Your task to perform on an android device: Add macbook pro 15 inch to the cart on bestbuy.com Image 0: 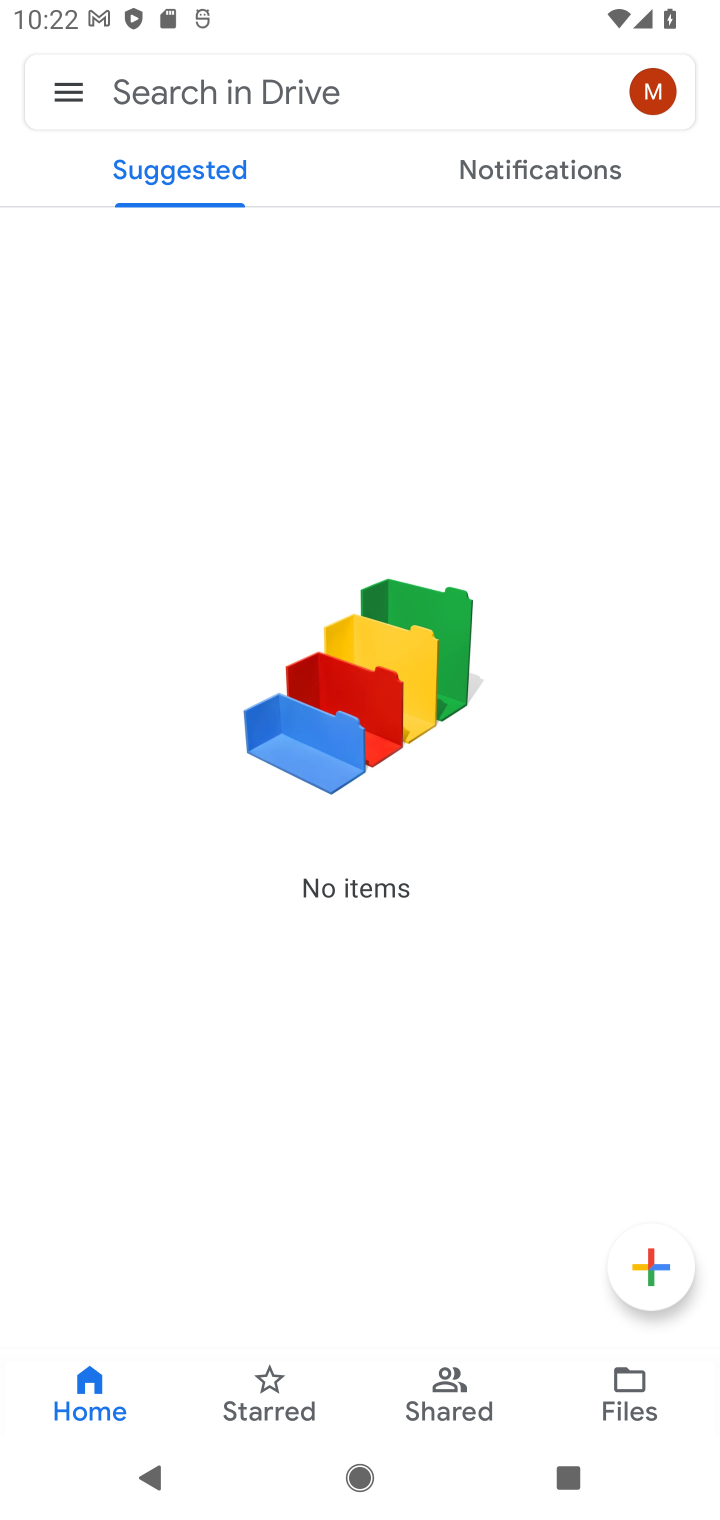
Step 0: press home button
Your task to perform on an android device: Add macbook pro 15 inch to the cart on bestbuy.com Image 1: 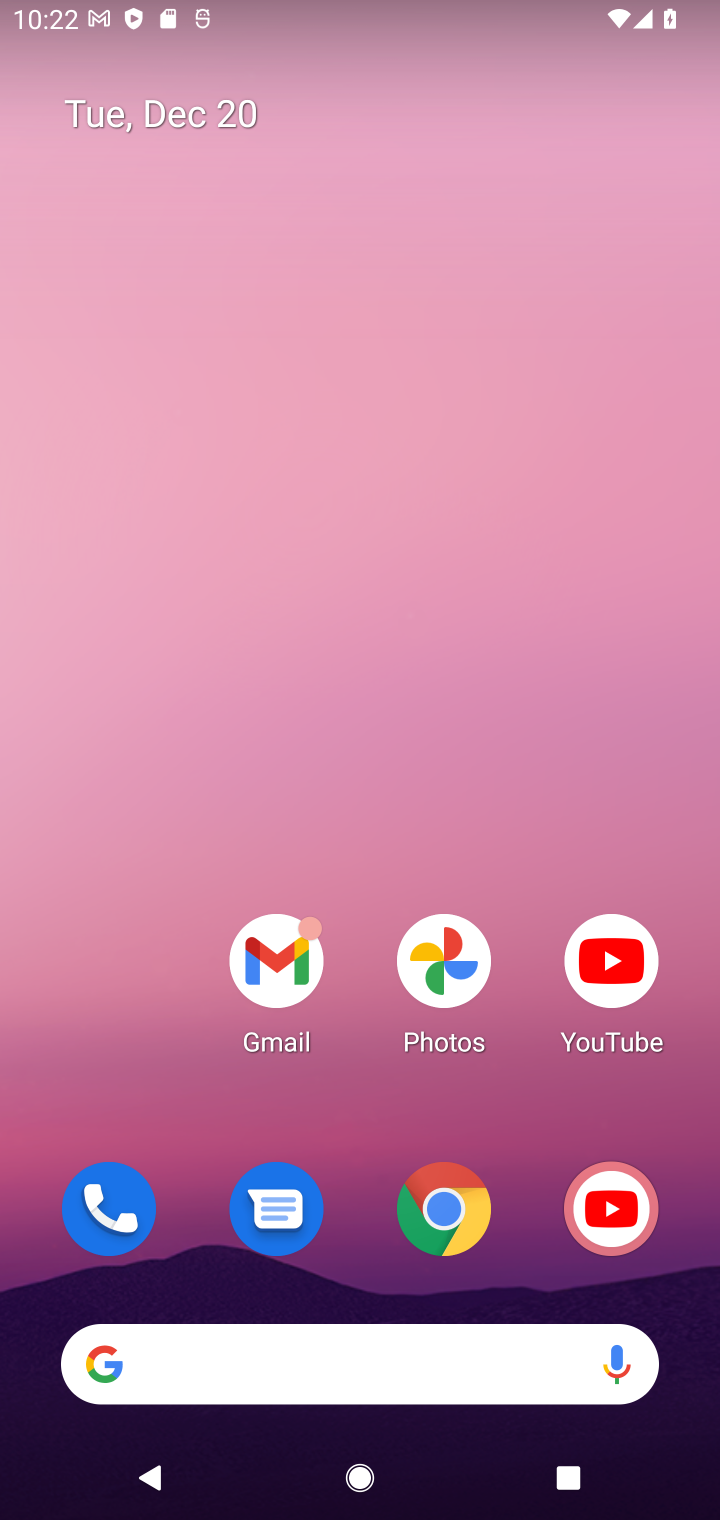
Step 1: click (448, 1219)
Your task to perform on an android device: Add macbook pro 15 inch to the cart on bestbuy.com Image 2: 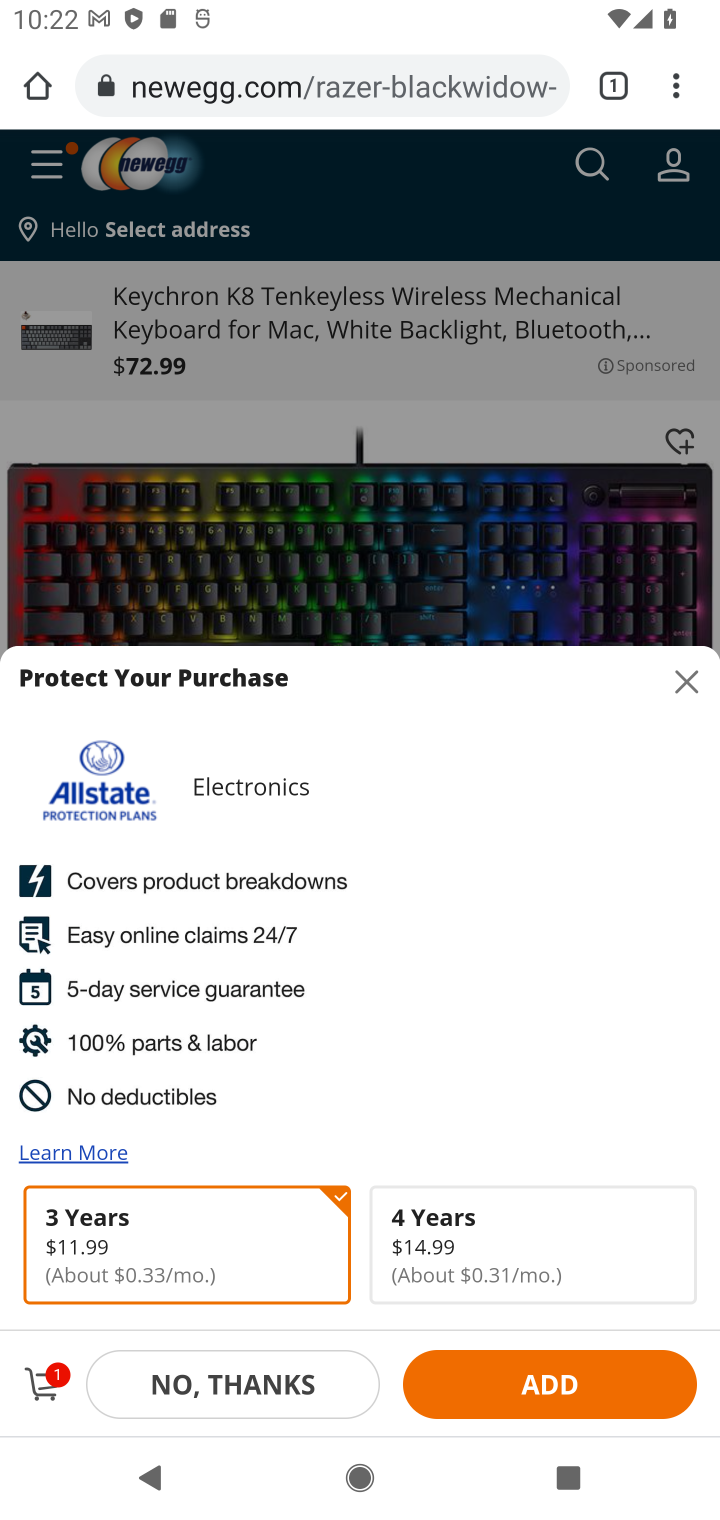
Step 2: click (241, 85)
Your task to perform on an android device: Add macbook pro 15 inch to the cart on bestbuy.com Image 3: 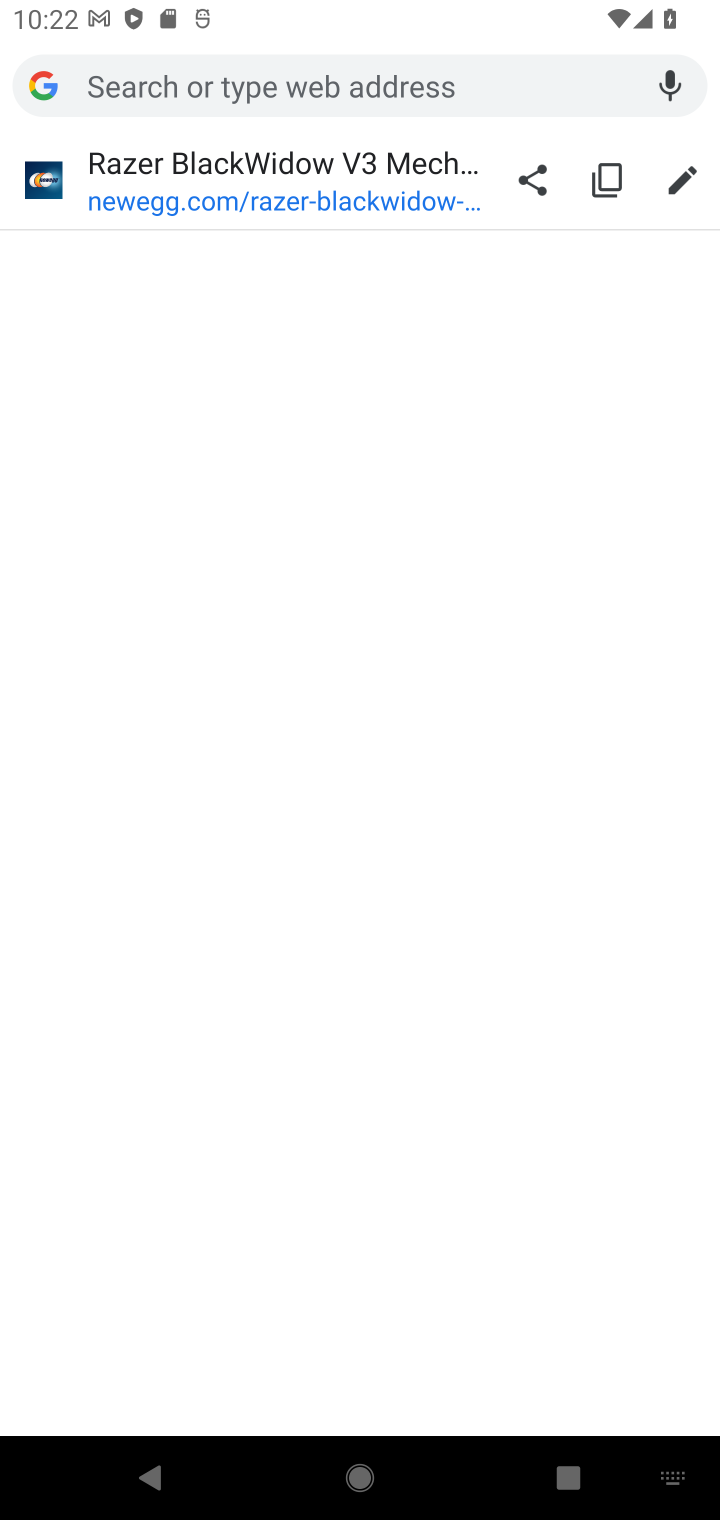
Step 3: type "bestbuy.com"
Your task to perform on an android device: Add macbook pro 15 inch to the cart on bestbuy.com Image 4: 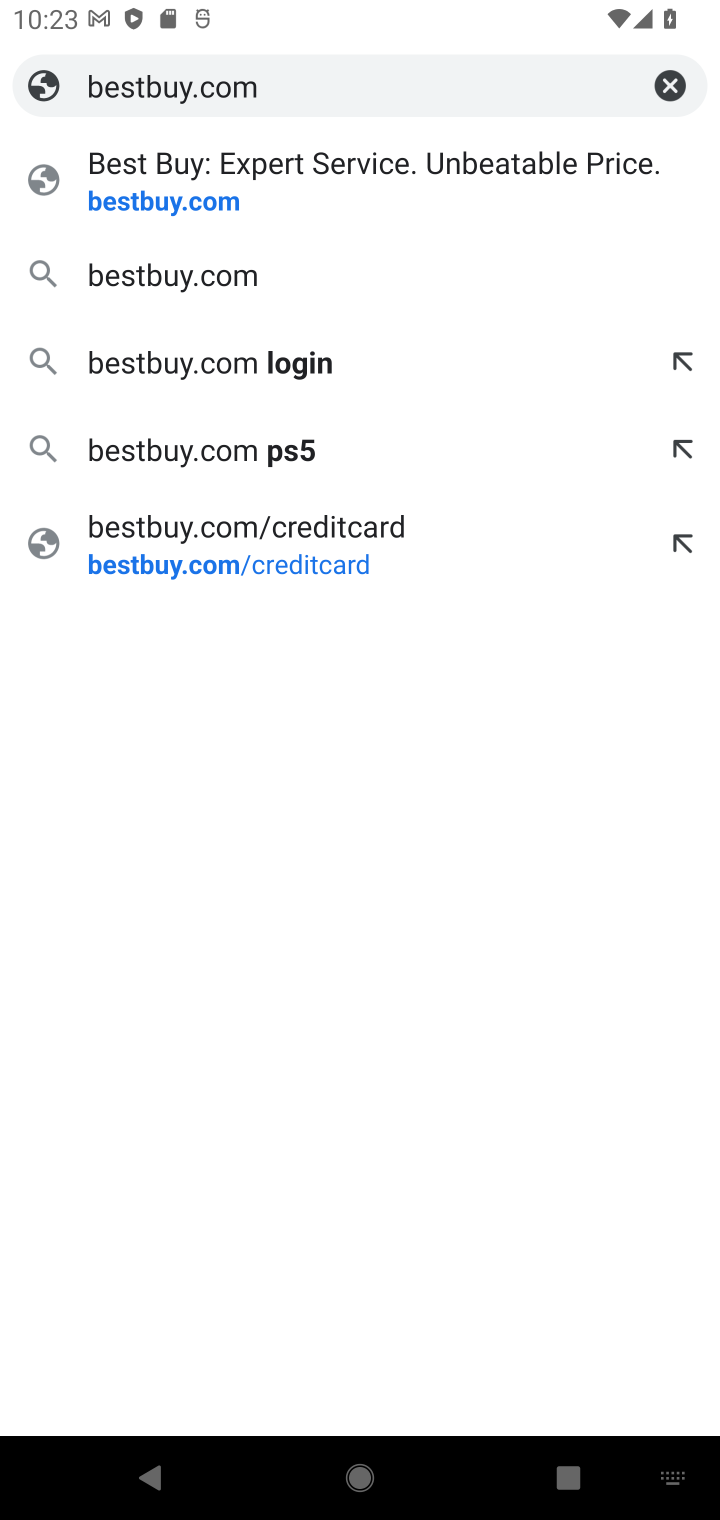
Step 4: click (137, 191)
Your task to perform on an android device: Add macbook pro 15 inch to the cart on bestbuy.com Image 5: 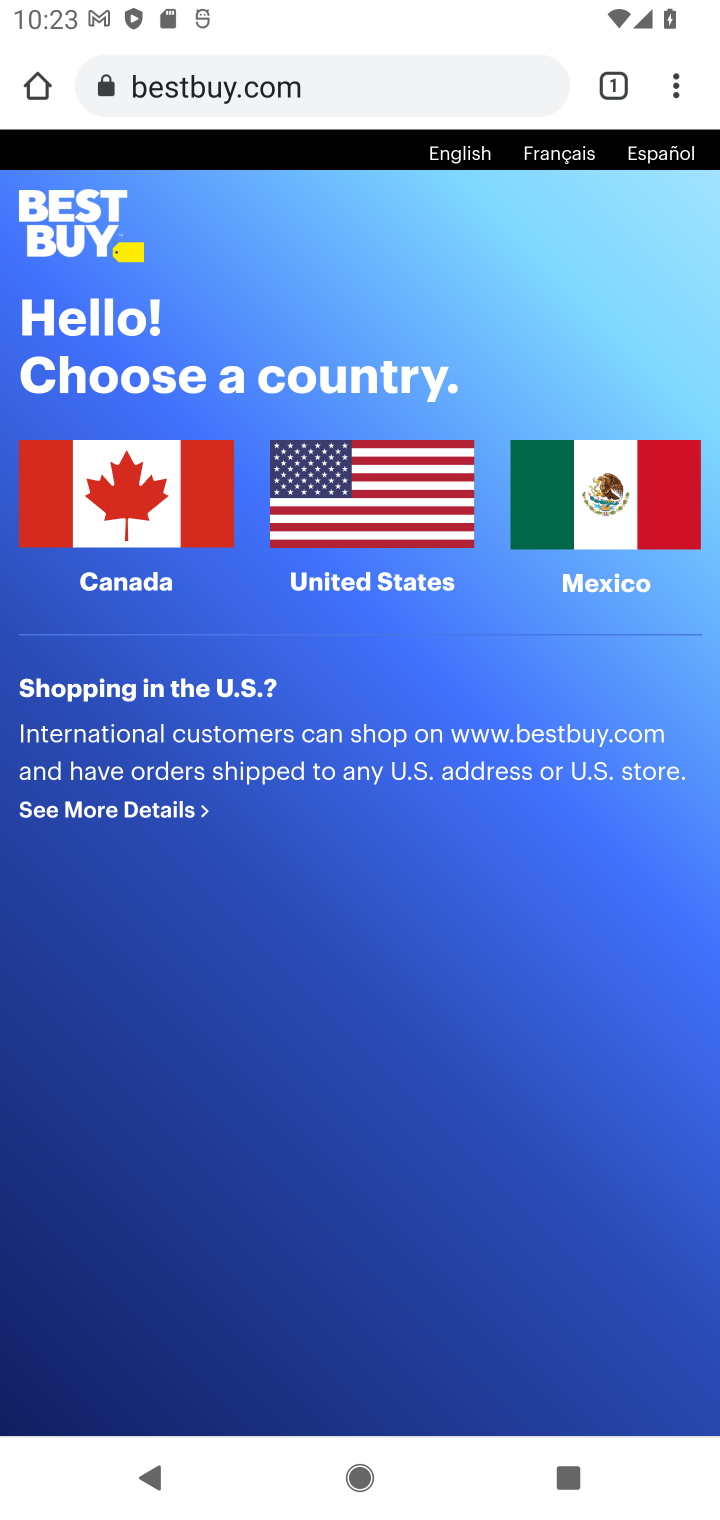
Step 5: click (377, 499)
Your task to perform on an android device: Add macbook pro 15 inch to the cart on bestbuy.com Image 6: 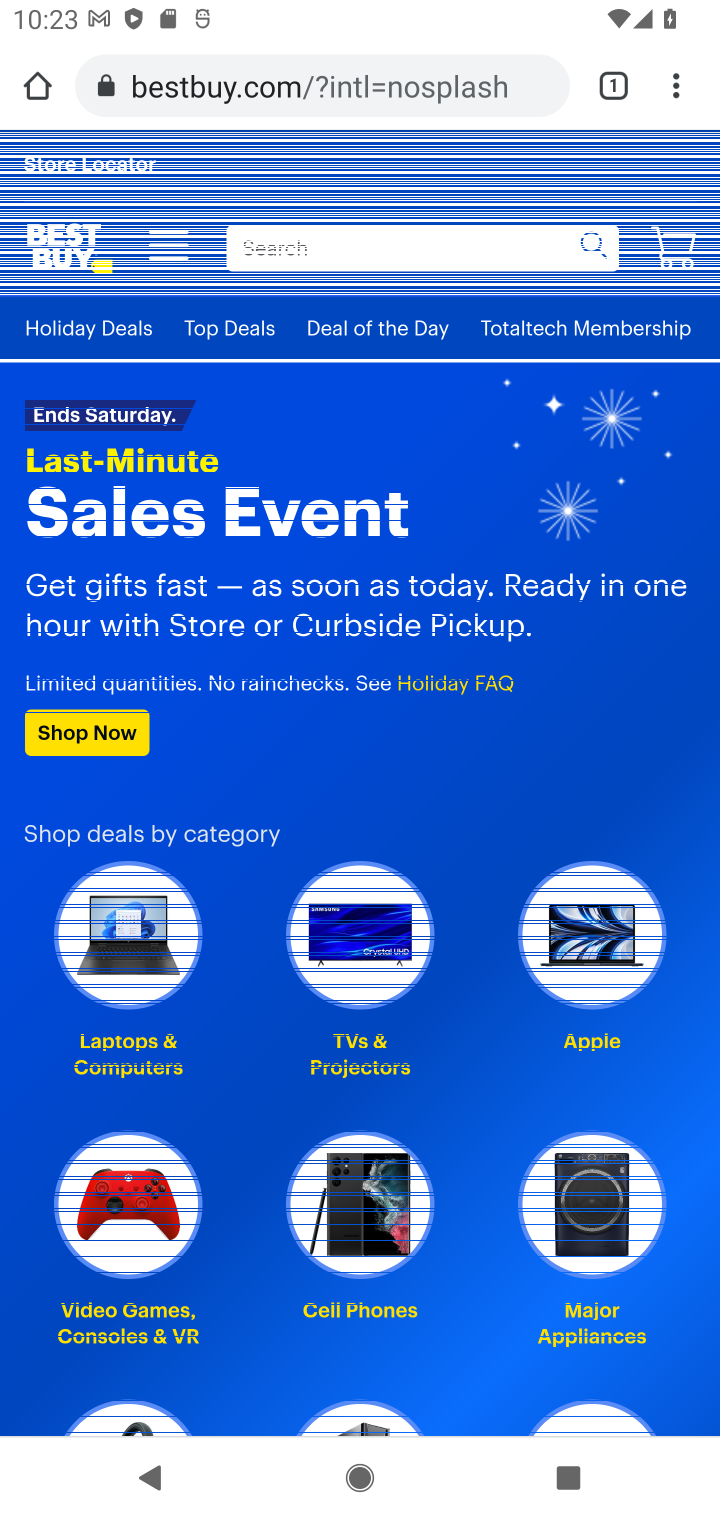
Step 6: click (268, 257)
Your task to perform on an android device: Add macbook pro 15 inch to the cart on bestbuy.com Image 7: 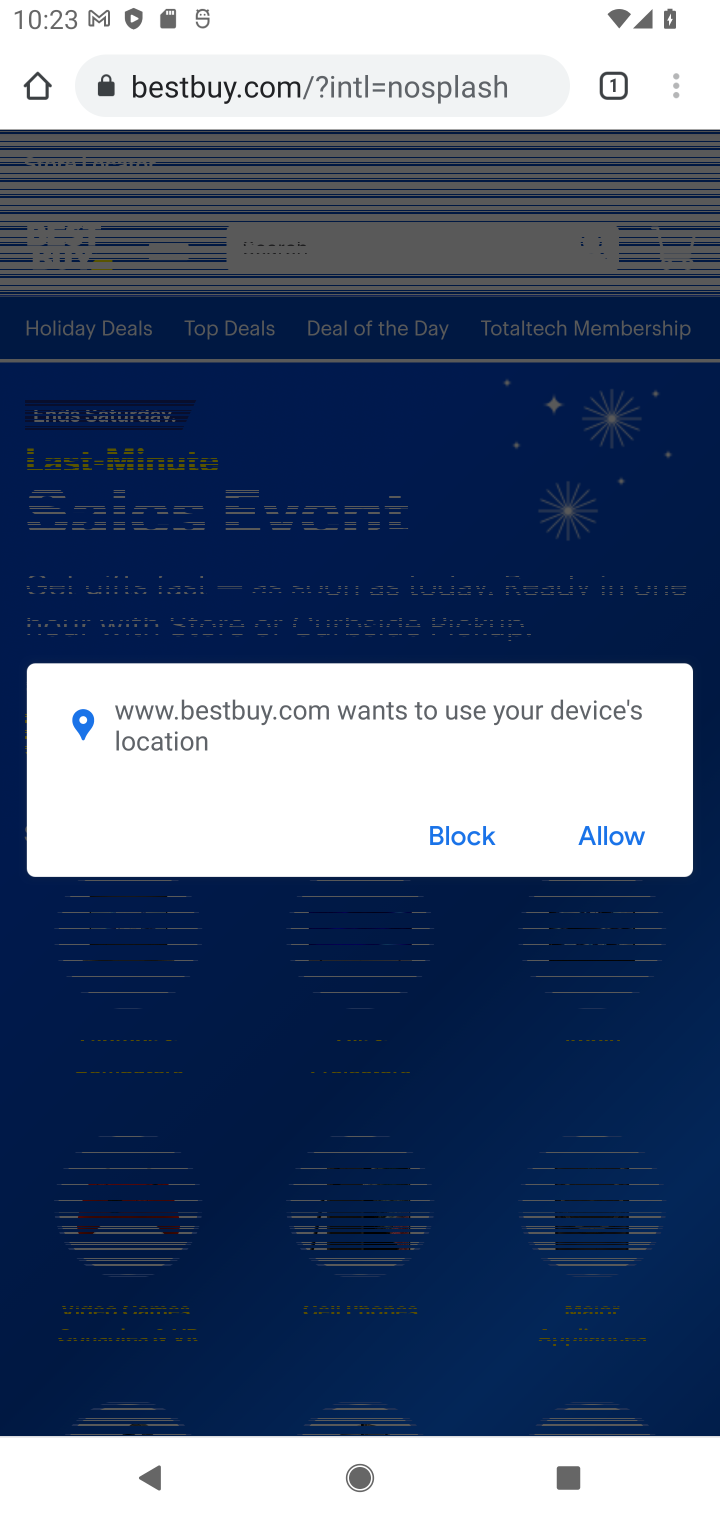
Step 7: click (463, 844)
Your task to perform on an android device: Add macbook pro 15 inch to the cart on bestbuy.com Image 8: 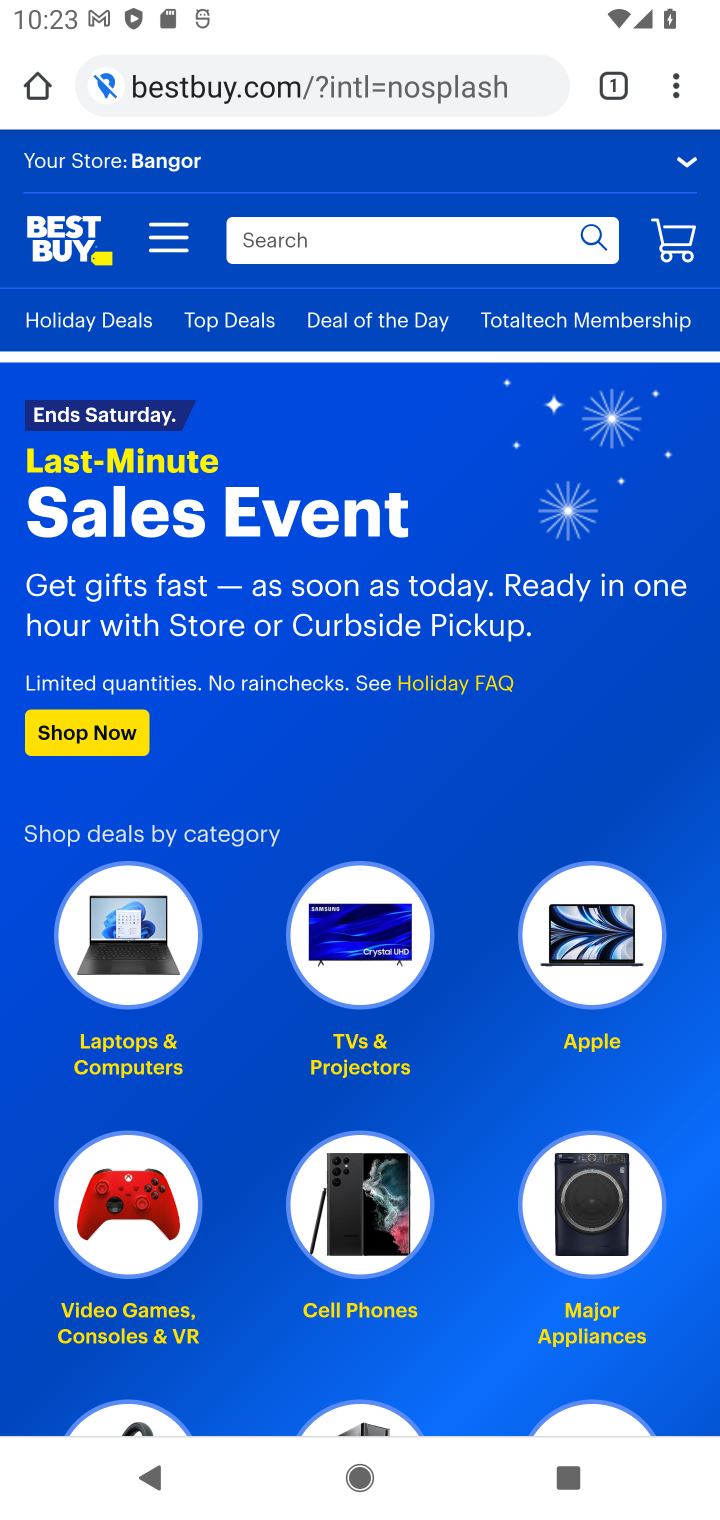
Step 8: click (289, 251)
Your task to perform on an android device: Add macbook pro 15 inch to the cart on bestbuy.com Image 9: 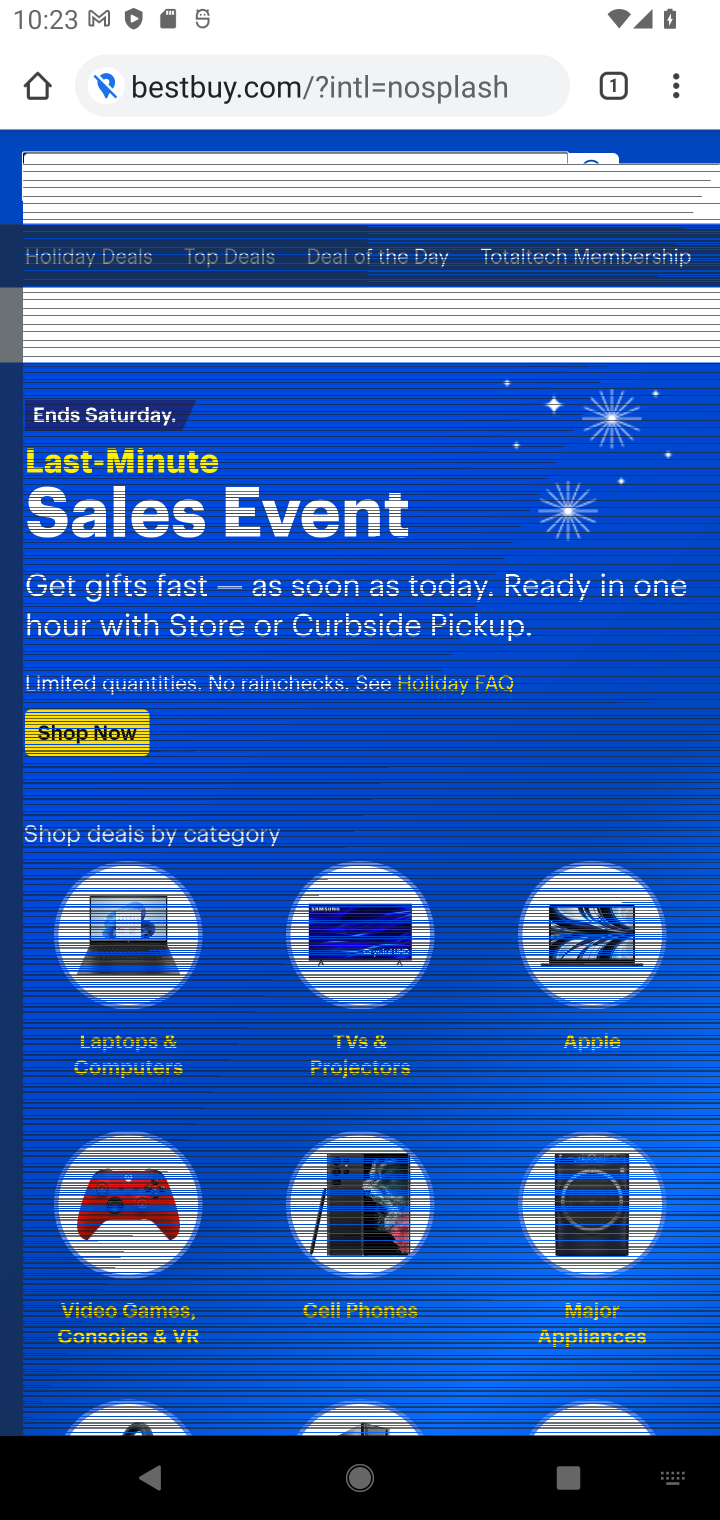
Step 9: type "macbook pro 15 inch"
Your task to perform on an android device: Add macbook pro 15 inch to the cart on bestbuy.com Image 10: 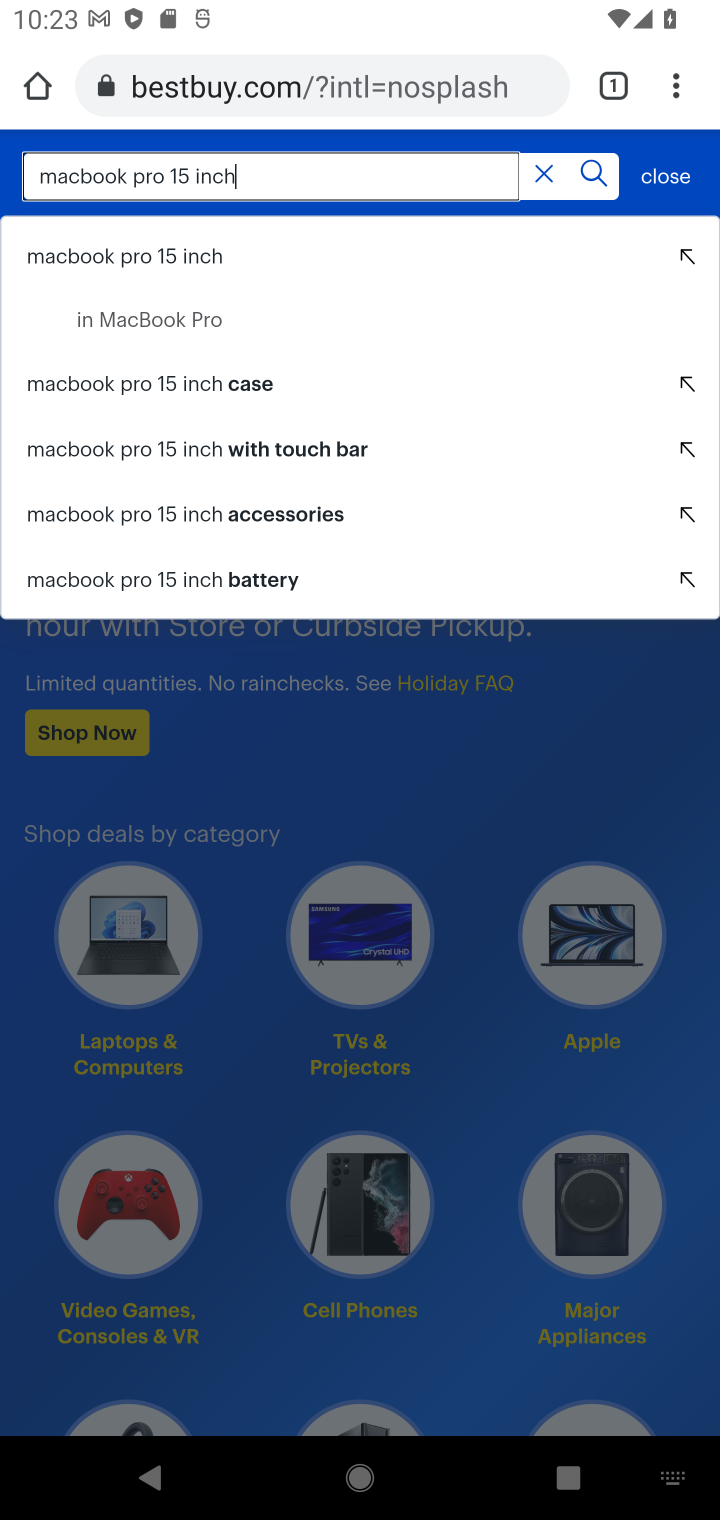
Step 10: click (122, 262)
Your task to perform on an android device: Add macbook pro 15 inch to the cart on bestbuy.com Image 11: 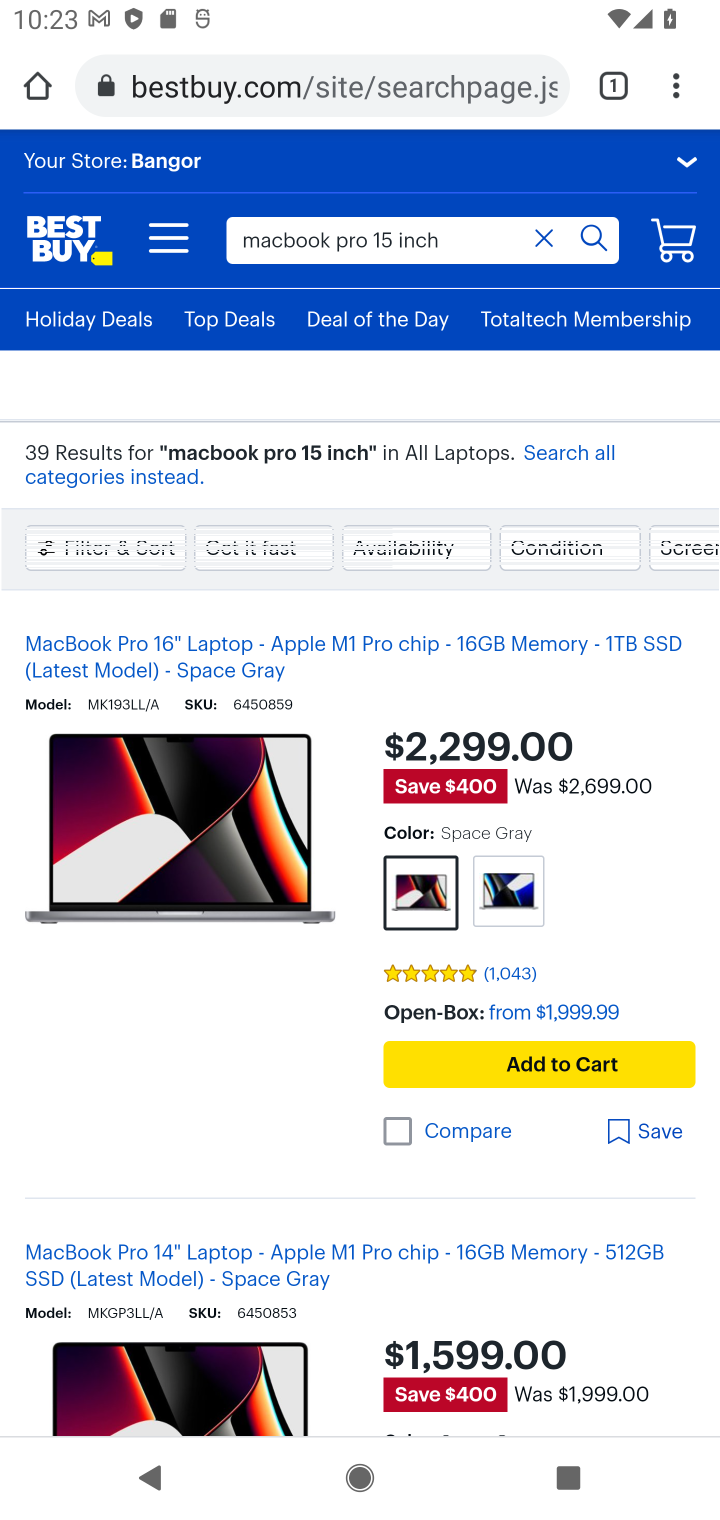
Step 11: task complete